Your task to perform on an android device: check google app version Image 0: 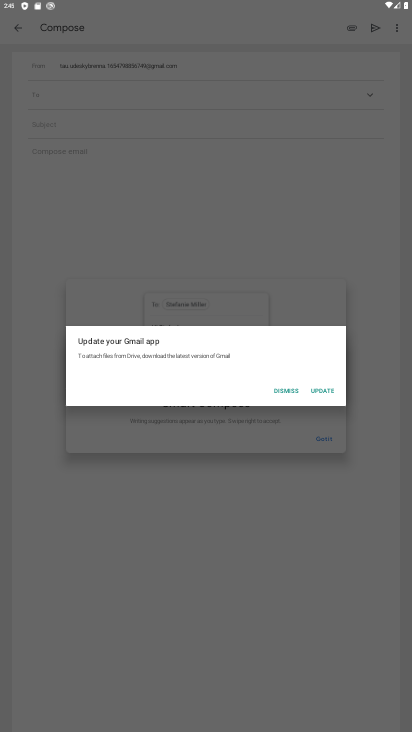
Step 0: press home button
Your task to perform on an android device: check google app version Image 1: 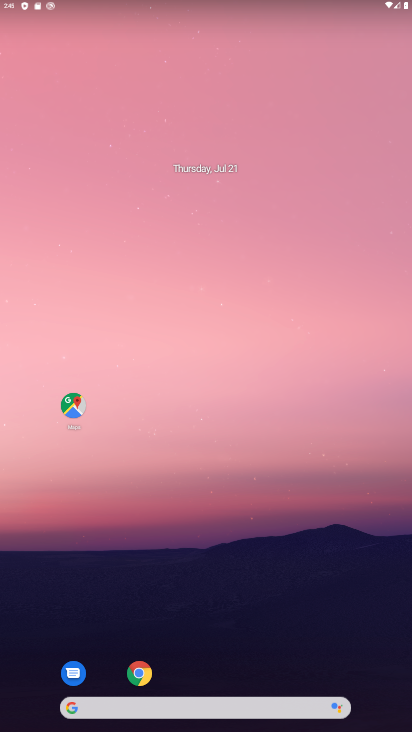
Step 1: drag from (267, 649) to (222, 138)
Your task to perform on an android device: check google app version Image 2: 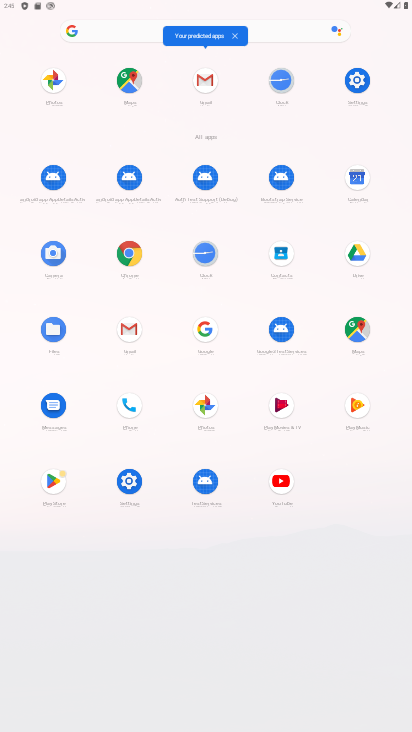
Step 2: click (200, 329)
Your task to perform on an android device: check google app version Image 3: 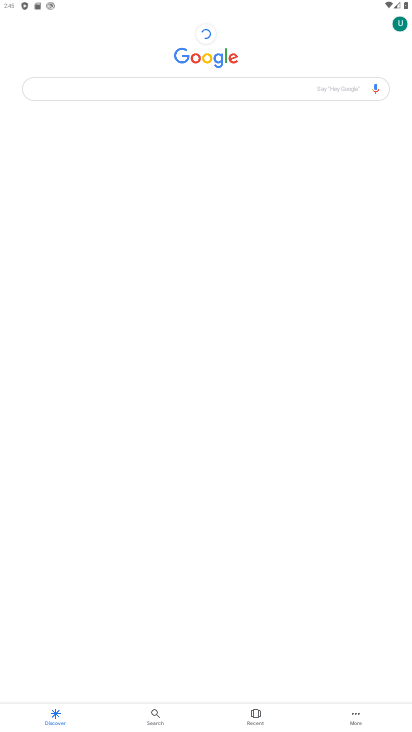
Step 3: click (357, 720)
Your task to perform on an android device: check google app version Image 4: 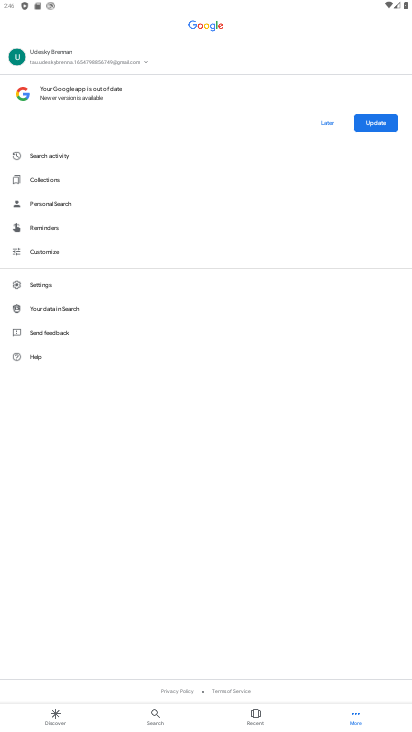
Step 4: click (61, 278)
Your task to perform on an android device: check google app version Image 5: 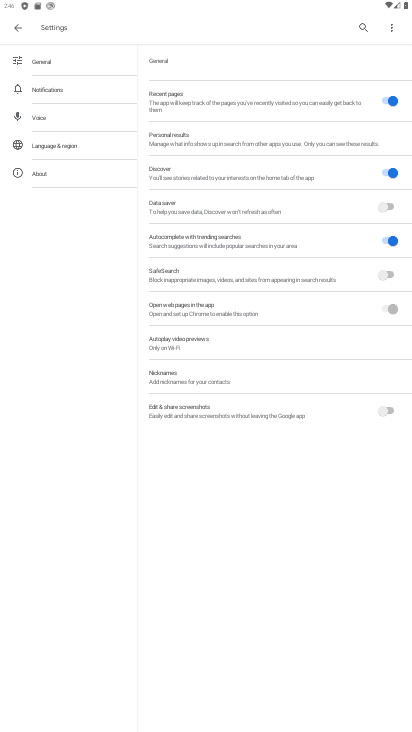
Step 5: click (62, 177)
Your task to perform on an android device: check google app version Image 6: 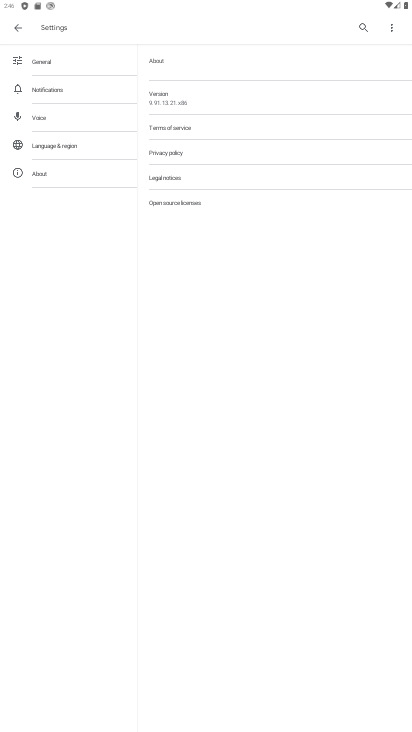
Step 6: click (215, 98)
Your task to perform on an android device: check google app version Image 7: 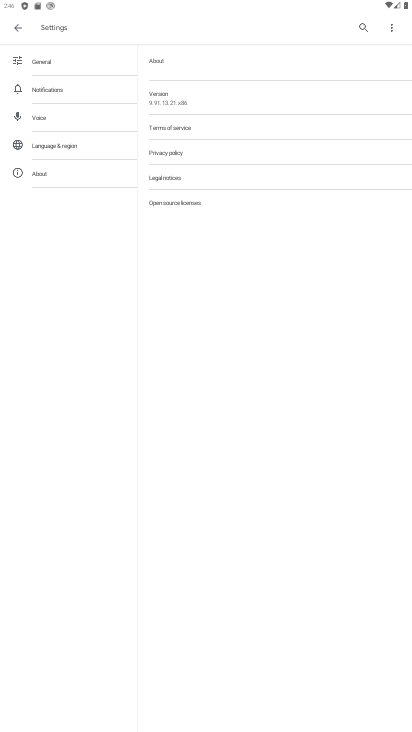
Step 7: task complete